Your task to perform on an android device: open wifi settings Image 0: 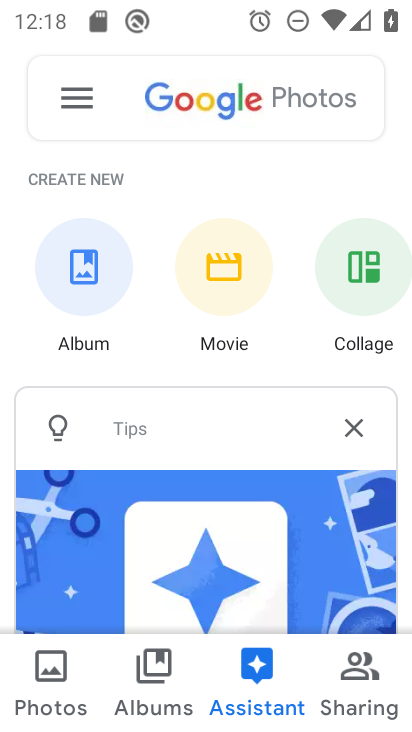
Step 0: press home button
Your task to perform on an android device: open wifi settings Image 1: 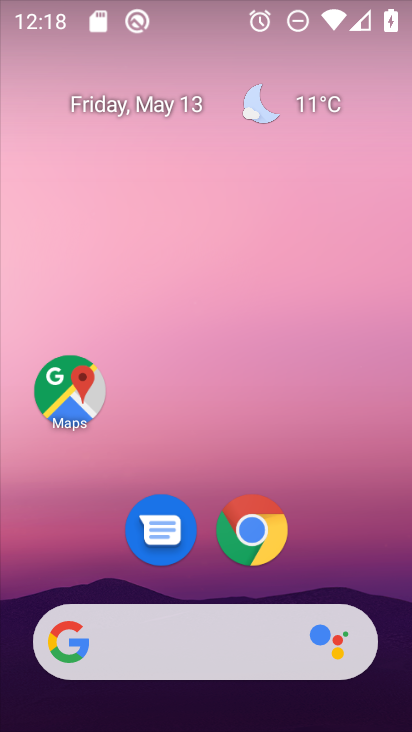
Step 1: drag from (162, 631) to (248, 101)
Your task to perform on an android device: open wifi settings Image 2: 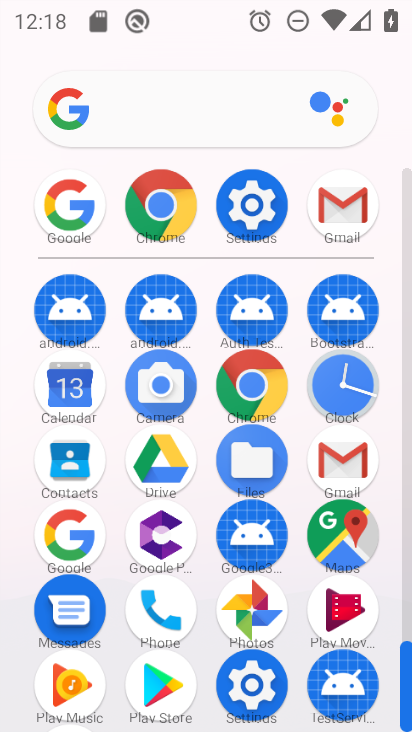
Step 2: click (253, 212)
Your task to perform on an android device: open wifi settings Image 3: 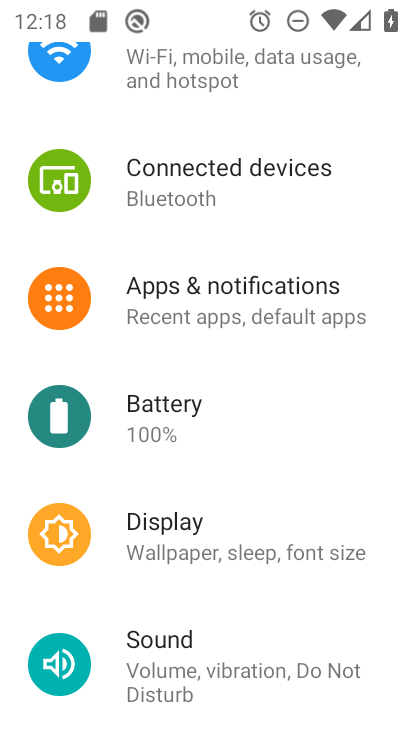
Step 3: drag from (304, 104) to (241, 615)
Your task to perform on an android device: open wifi settings Image 4: 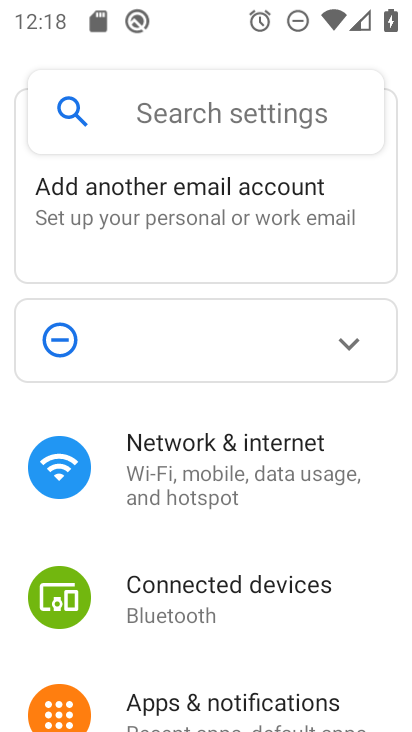
Step 4: click (225, 471)
Your task to perform on an android device: open wifi settings Image 5: 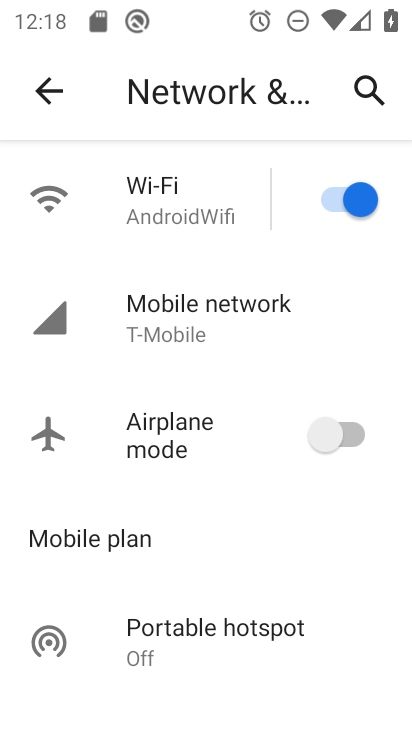
Step 5: click (166, 215)
Your task to perform on an android device: open wifi settings Image 6: 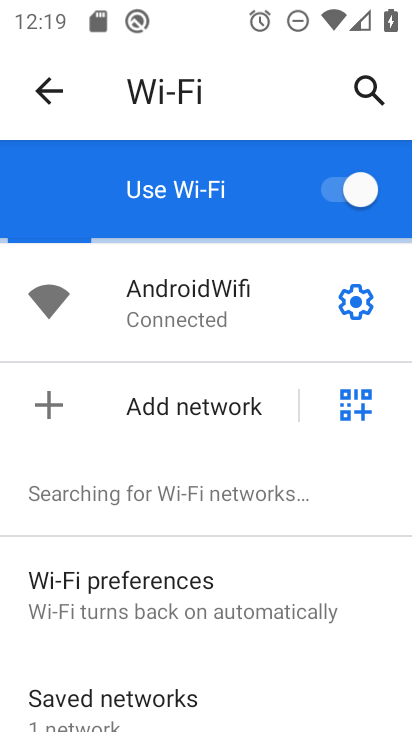
Step 6: task complete